Your task to perform on an android device: Search for logitech g502 on walmart.com, select the first entry, add it to the cart, then select checkout. Image 0: 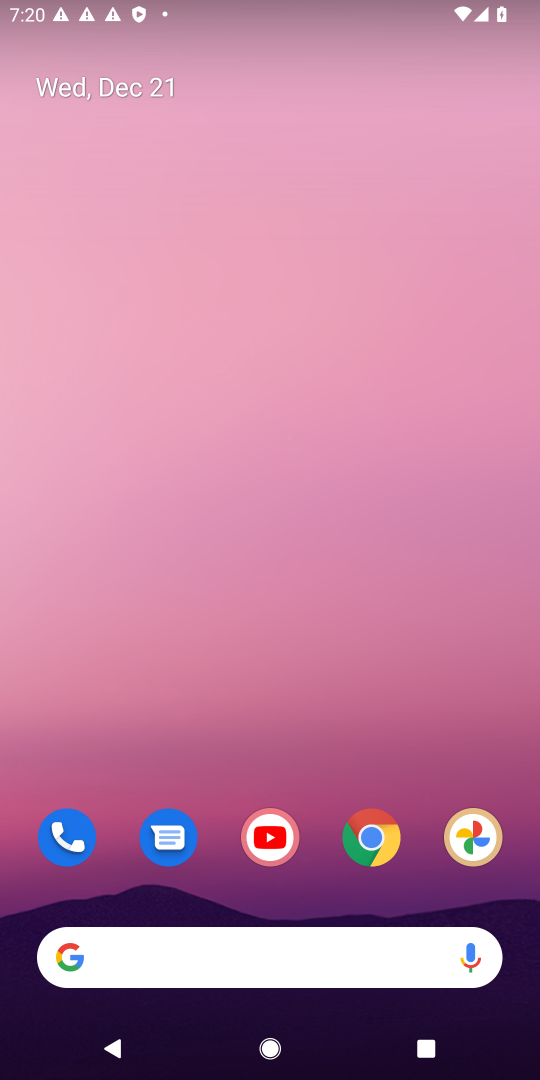
Step 0: drag from (318, 929) to (307, 213)
Your task to perform on an android device: Search for logitech g502 on walmart.com, select the first entry, add it to the cart, then select checkout. Image 1: 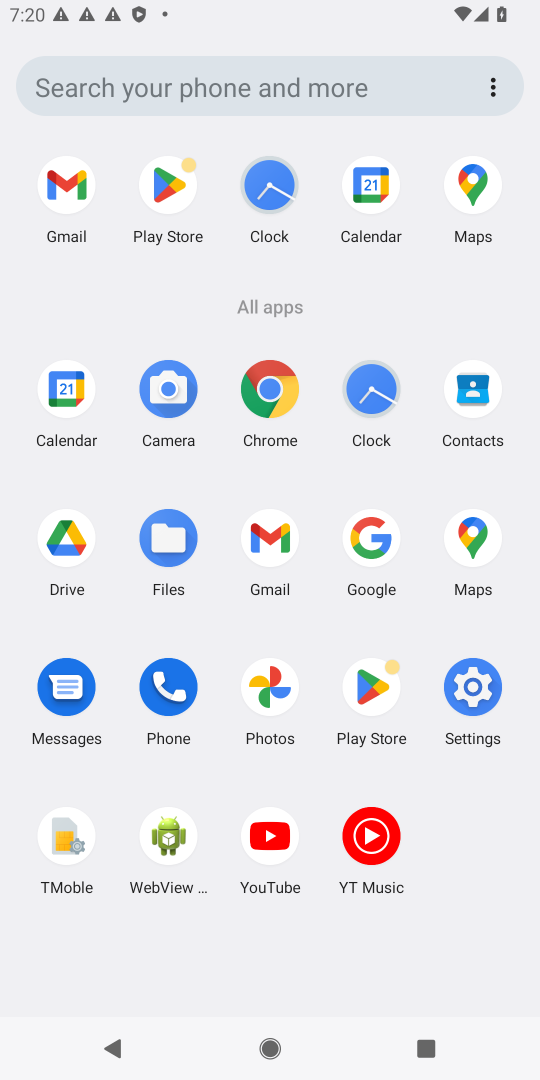
Step 1: click (362, 542)
Your task to perform on an android device: Search for logitech g502 on walmart.com, select the first entry, add it to the cart, then select checkout. Image 2: 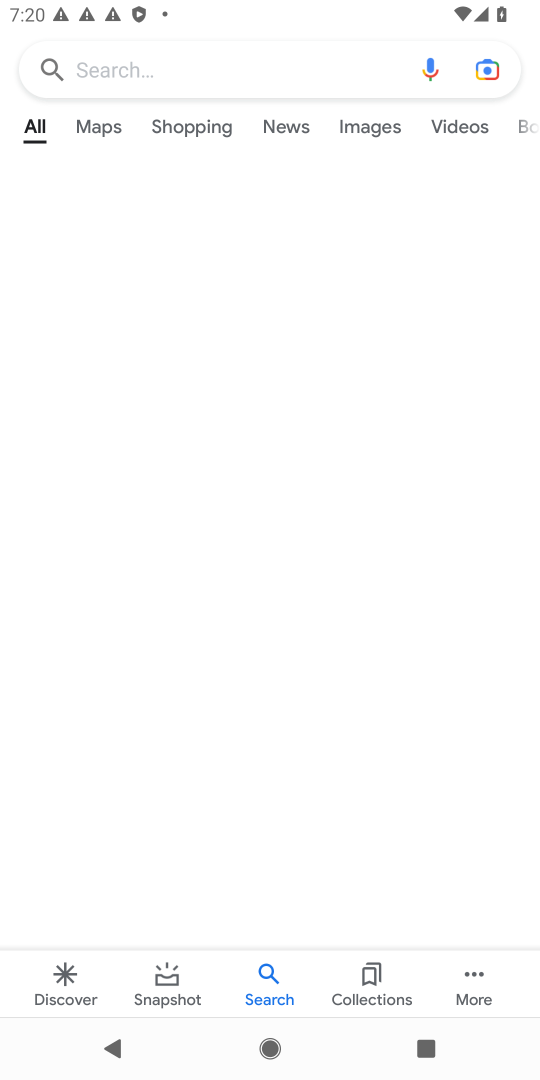
Step 2: click (120, 80)
Your task to perform on an android device: Search for logitech g502 on walmart.com, select the first entry, add it to the cart, then select checkout. Image 3: 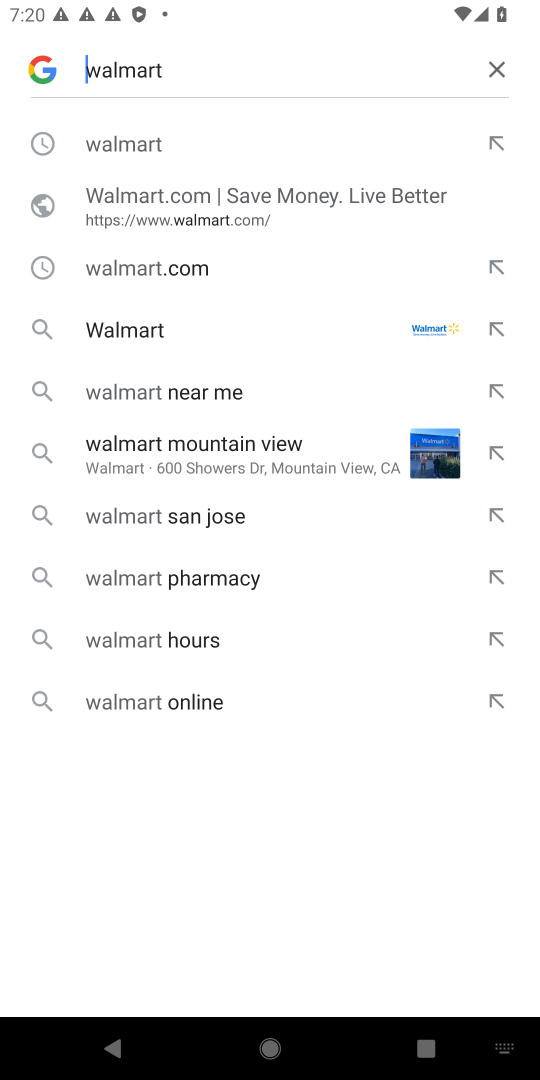
Step 3: click (277, 211)
Your task to perform on an android device: Search for logitech g502 on walmart.com, select the first entry, add it to the cart, then select checkout. Image 4: 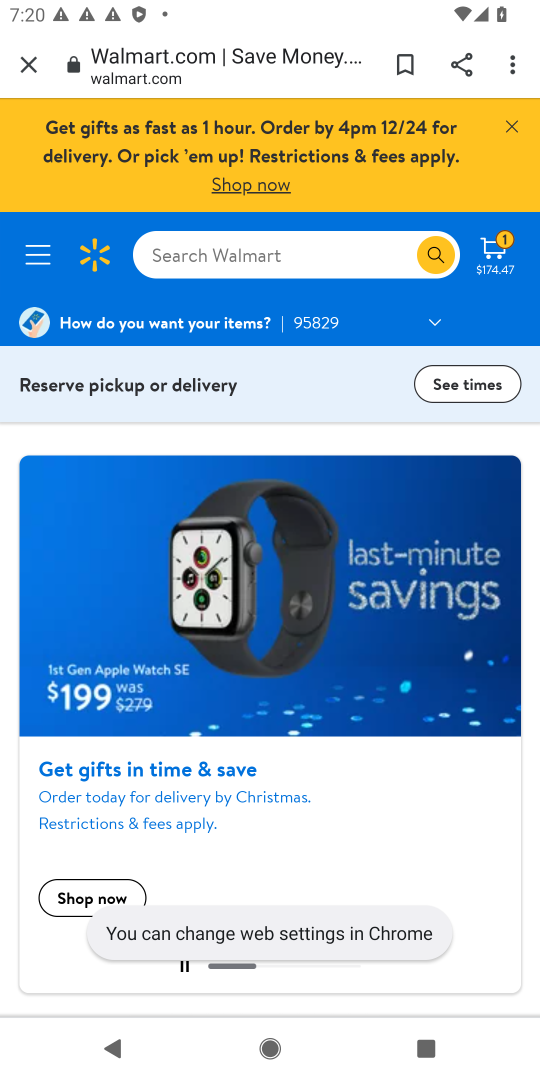
Step 4: click (220, 247)
Your task to perform on an android device: Search for logitech g502 on walmart.com, select the first entry, add it to the cart, then select checkout. Image 5: 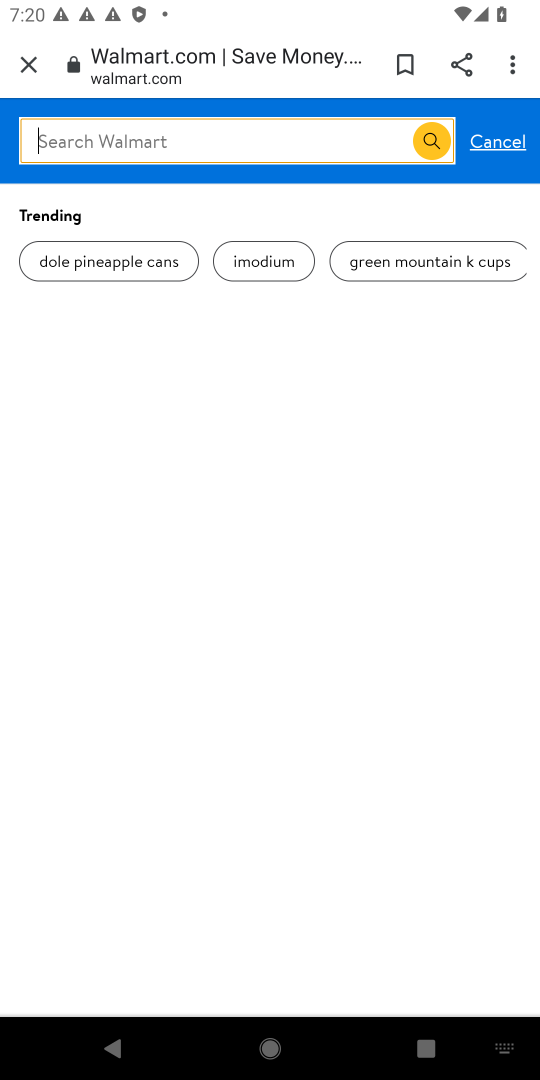
Step 5: type " logitech g502 "
Your task to perform on an android device: Search for logitech g502 on walmart.com, select the first entry, add it to the cart, then select checkout. Image 6: 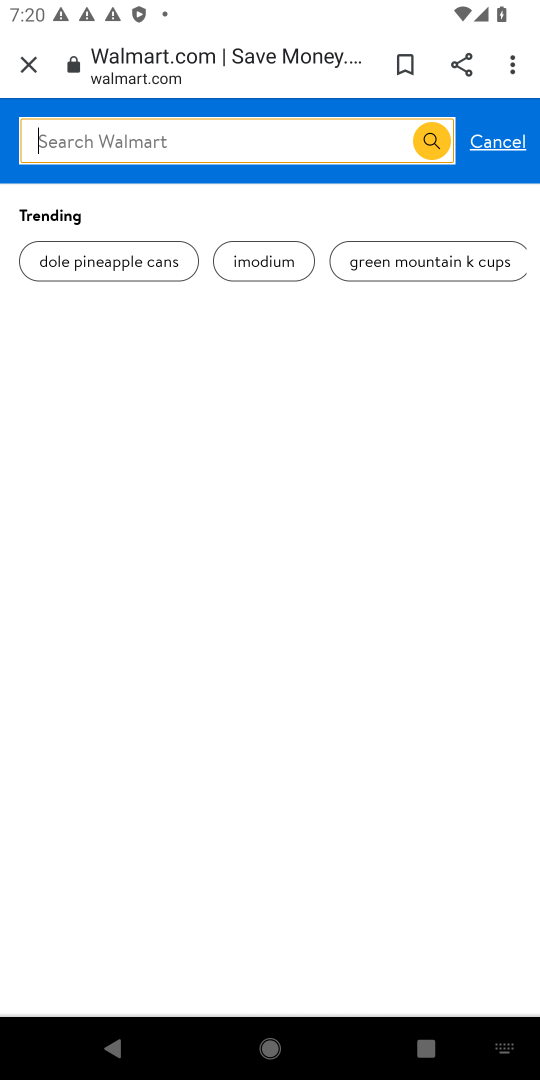
Step 6: click (435, 140)
Your task to perform on an android device: Search for logitech g502 on walmart.com, select the first entry, add it to the cart, then select checkout. Image 7: 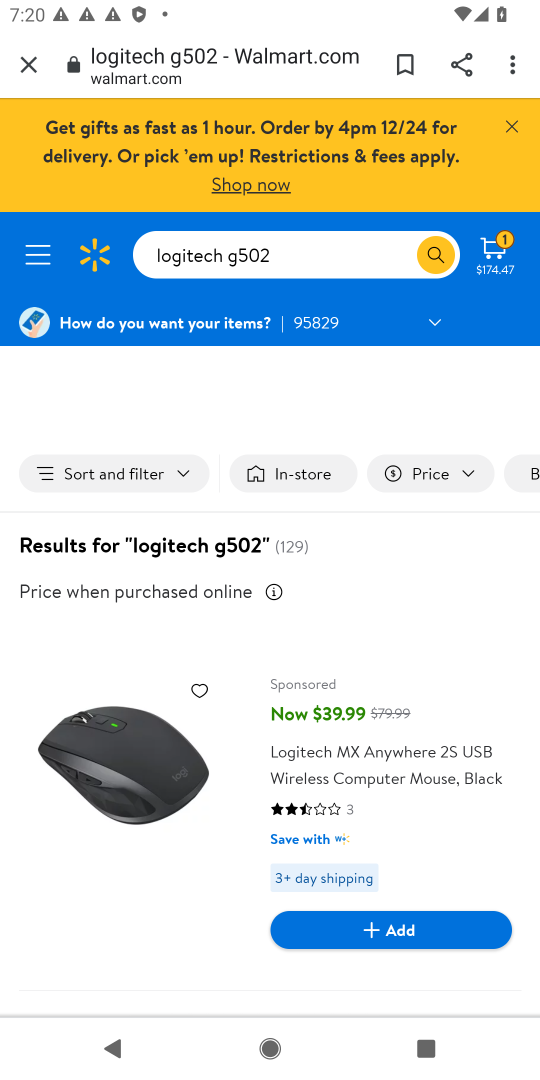
Step 7: click (369, 923)
Your task to perform on an android device: Search for logitech g502 on walmart.com, select the first entry, add it to the cart, then select checkout. Image 8: 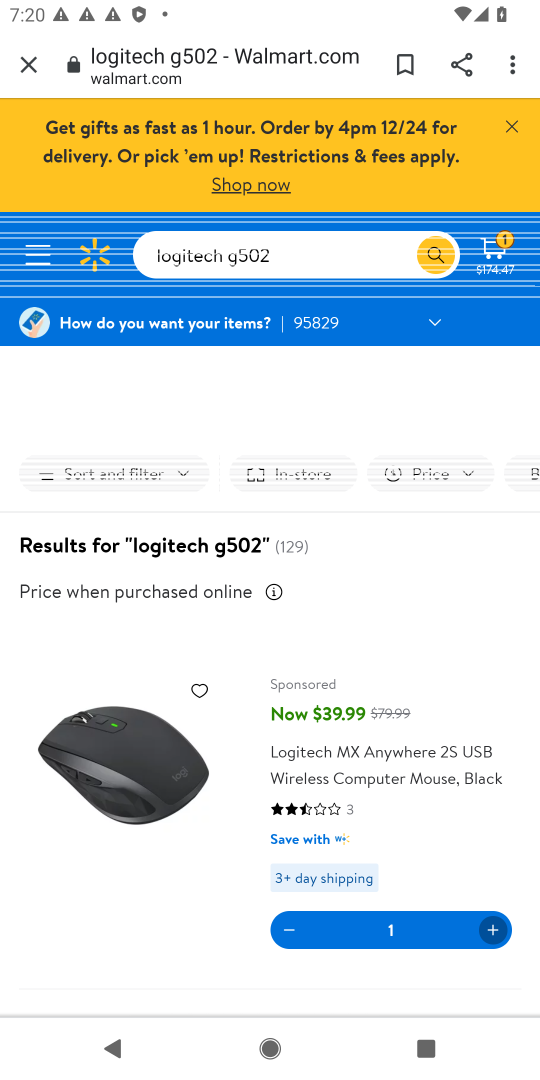
Step 8: click (499, 244)
Your task to perform on an android device: Search for logitech g502 on walmart.com, select the first entry, add it to the cart, then select checkout. Image 9: 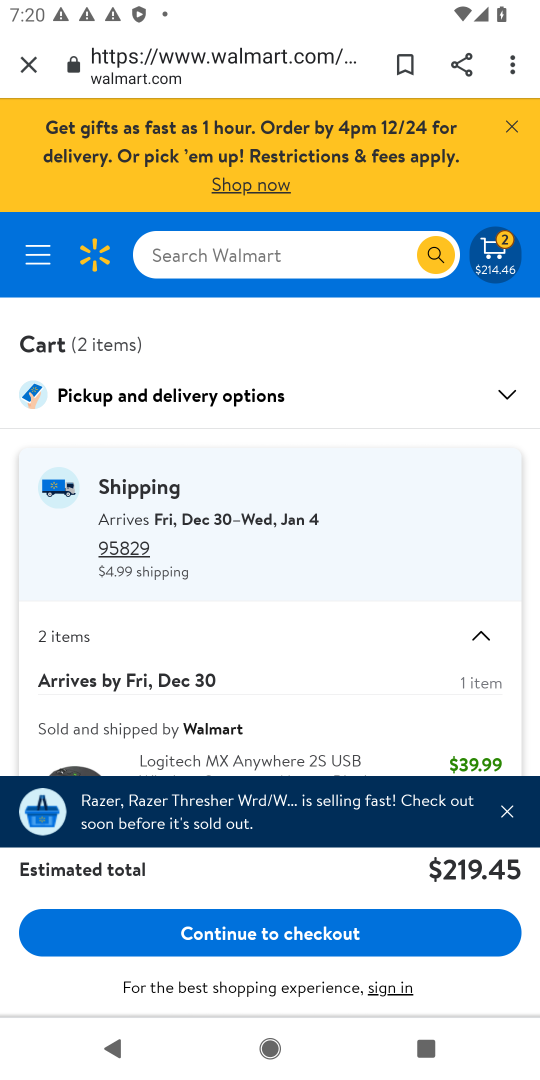
Step 9: click (265, 936)
Your task to perform on an android device: Search for logitech g502 on walmart.com, select the first entry, add it to the cart, then select checkout. Image 10: 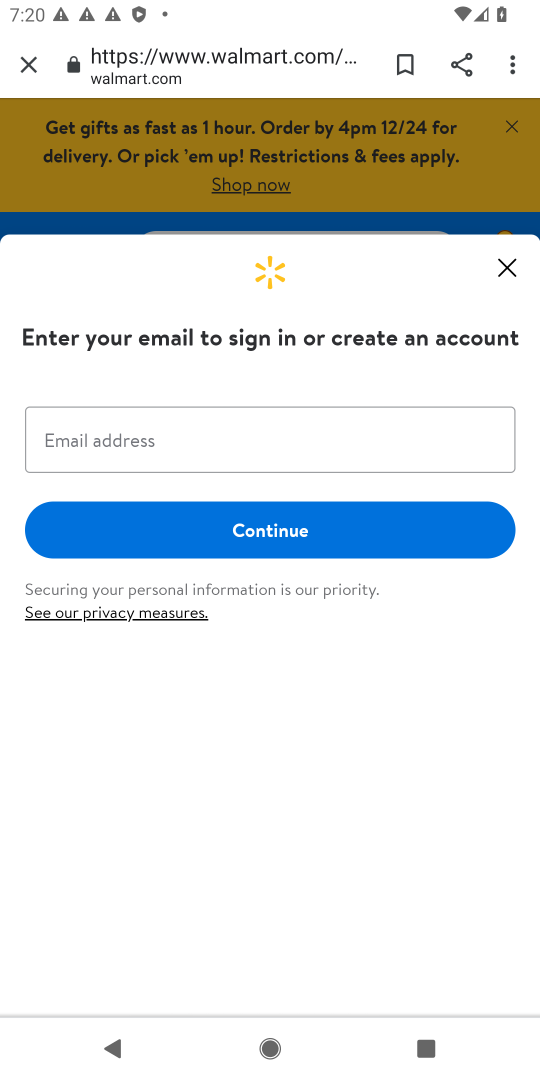
Step 10: click (503, 268)
Your task to perform on an android device: Search for logitech g502 on walmart.com, select the first entry, add it to the cart, then select checkout. Image 11: 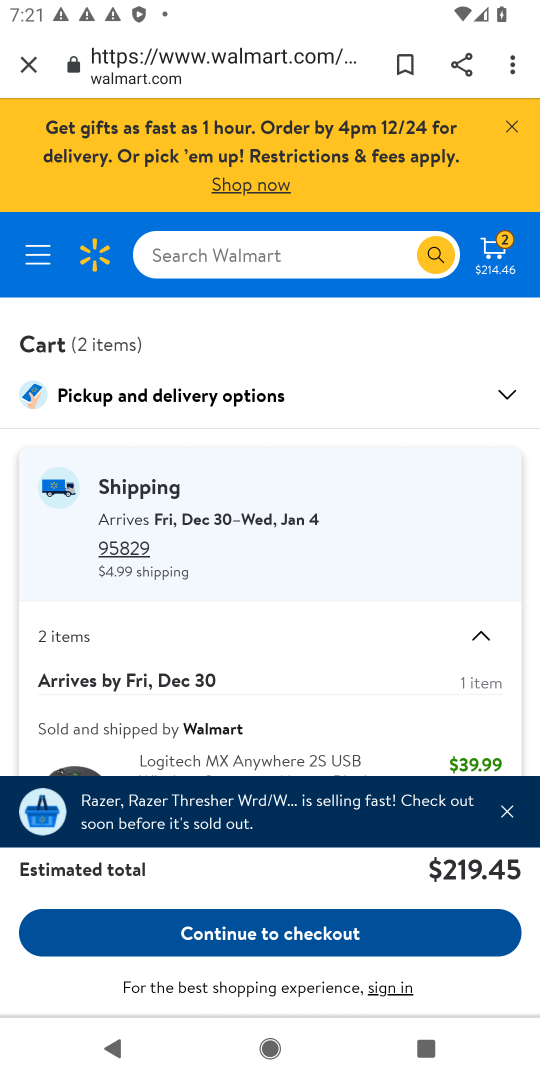
Step 11: task complete